Your task to perform on an android device: Go to Wikipedia Image 0: 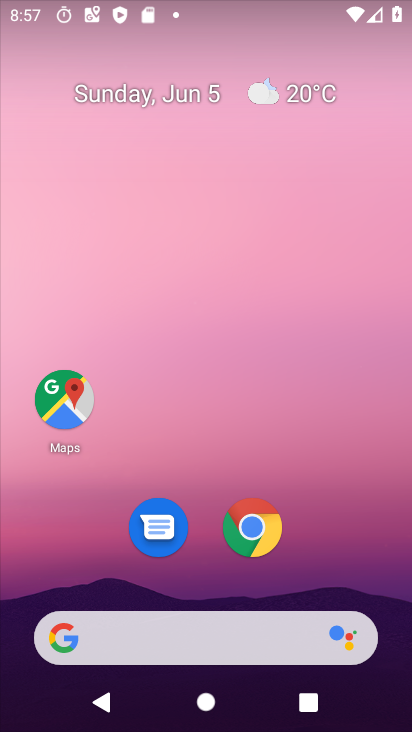
Step 0: drag from (328, 545) to (331, 6)
Your task to perform on an android device: Go to Wikipedia Image 1: 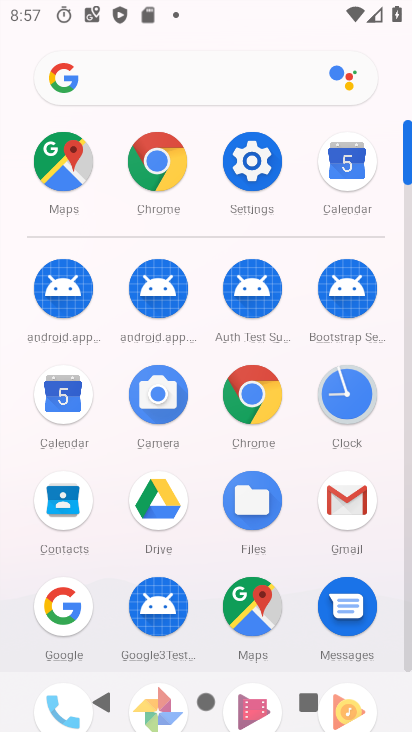
Step 1: drag from (319, 543) to (272, 125)
Your task to perform on an android device: Go to Wikipedia Image 2: 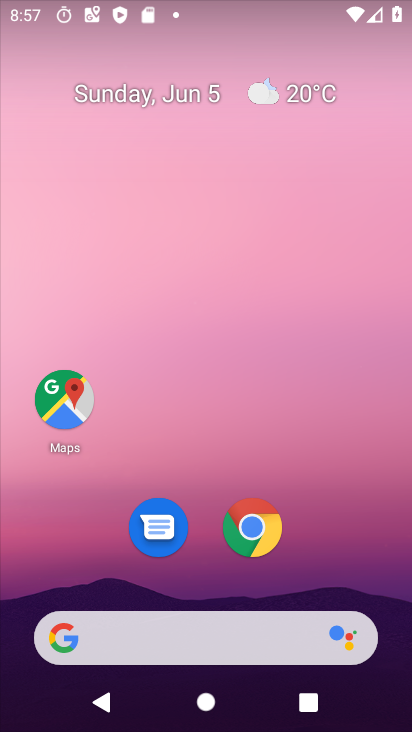
Step 2: drag from (324, 578) to (225, 9)
Your task to perform on an android device: Go to Wikipedia Image 3: 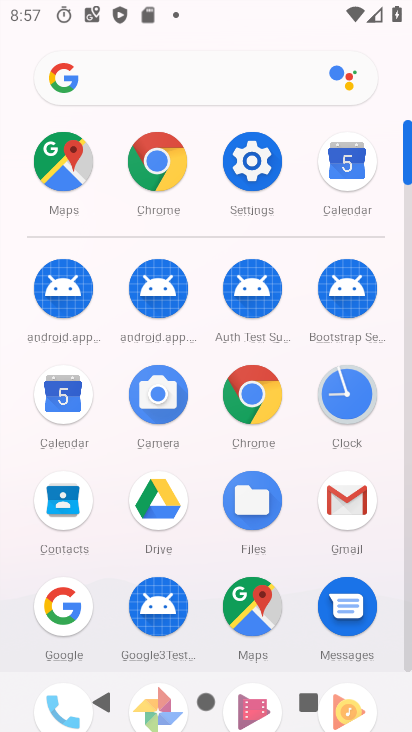
Step 3: drag from (361, 541) to (278, 24)
Your task to perform on an android device: Go to Wikipedia Image 4: 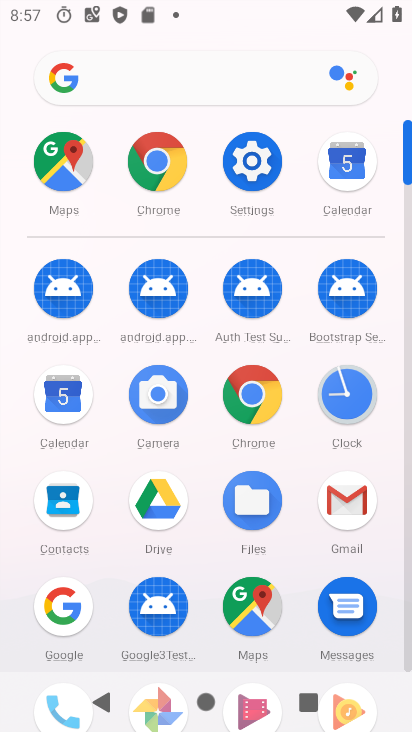
Step 4: click (132, 163)
Your task to perform on an android device: Go to Wikipedia Image 5: 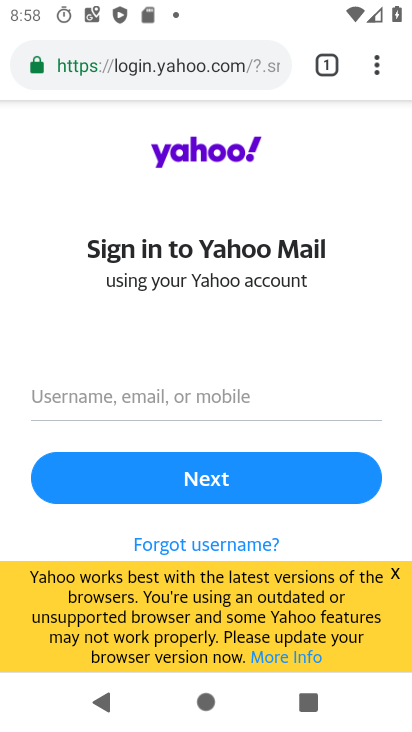
Step 5: click (152, 59)
Your task to perform on an android device: Go to Wikipedia Image 6: 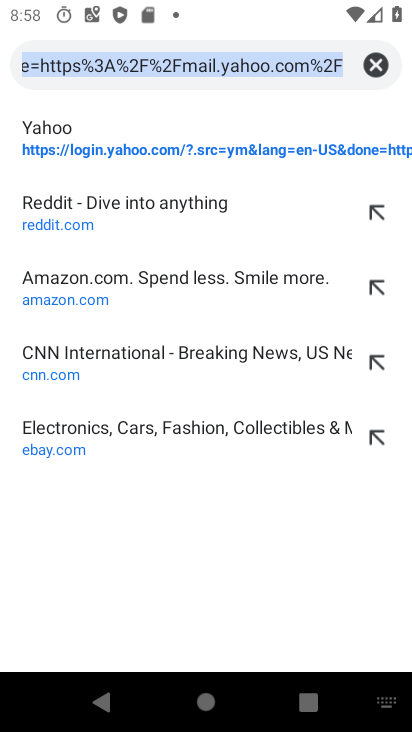
Step 6: click (373, 66)
Your task to perform on an android device: Go to Wikipedia Image 7: 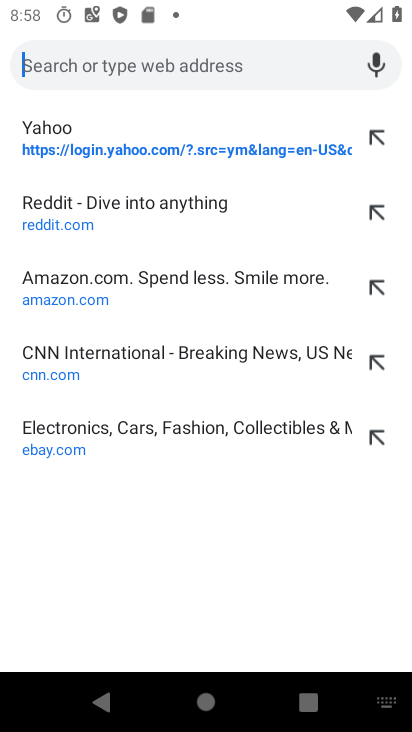
Step 7: type "wikipedia"
Your task to perform on an android device: Go to Wikipedia Image 8: 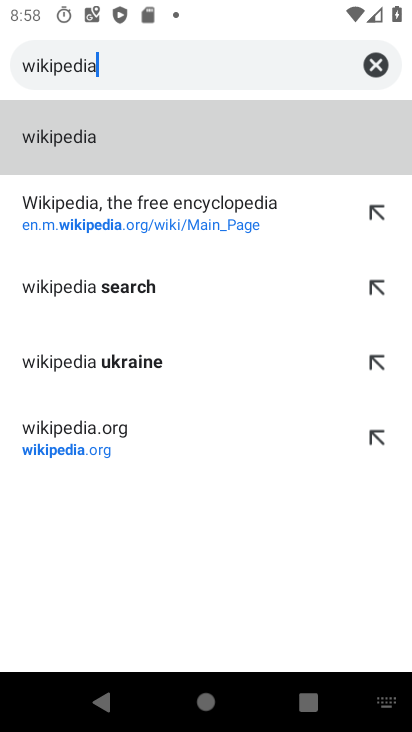
Step 8: click (118, 202)
Your task to perform on an android device: Go to Wikipedia Image 9: 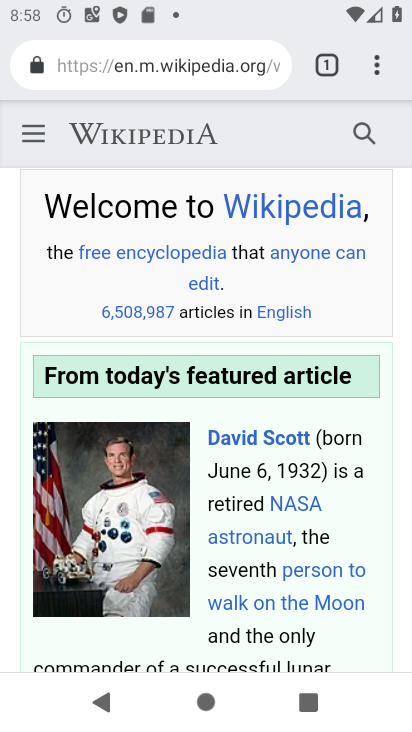
Step 9: task complete